Your task to perform on an android device: turn on javascript in the chrome app Image 0: 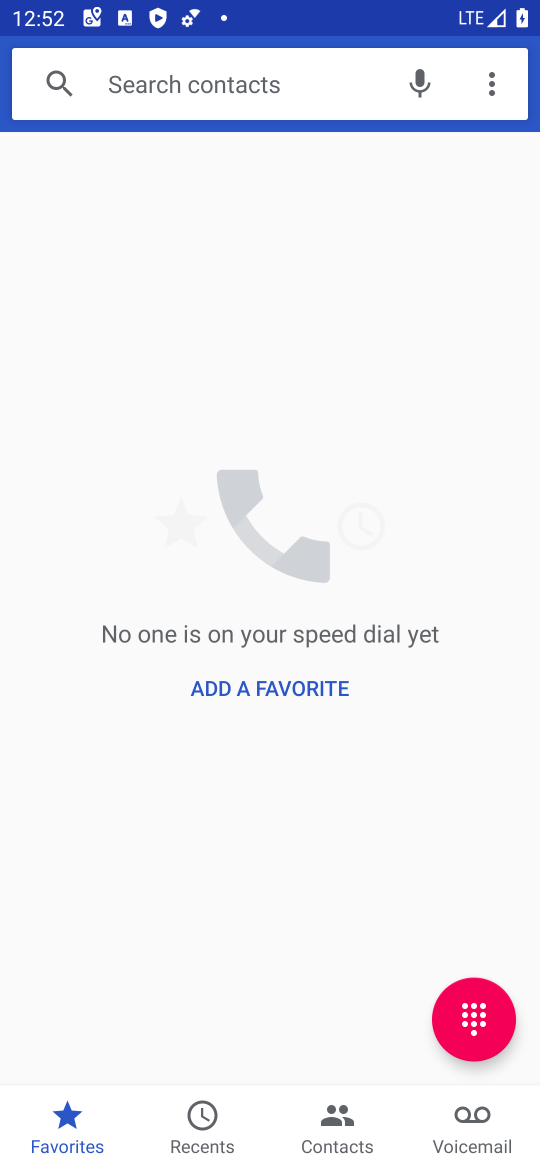
Step 0: press home button
Your task to perform on an android device: turn on javascript in the chrome app Image 1: 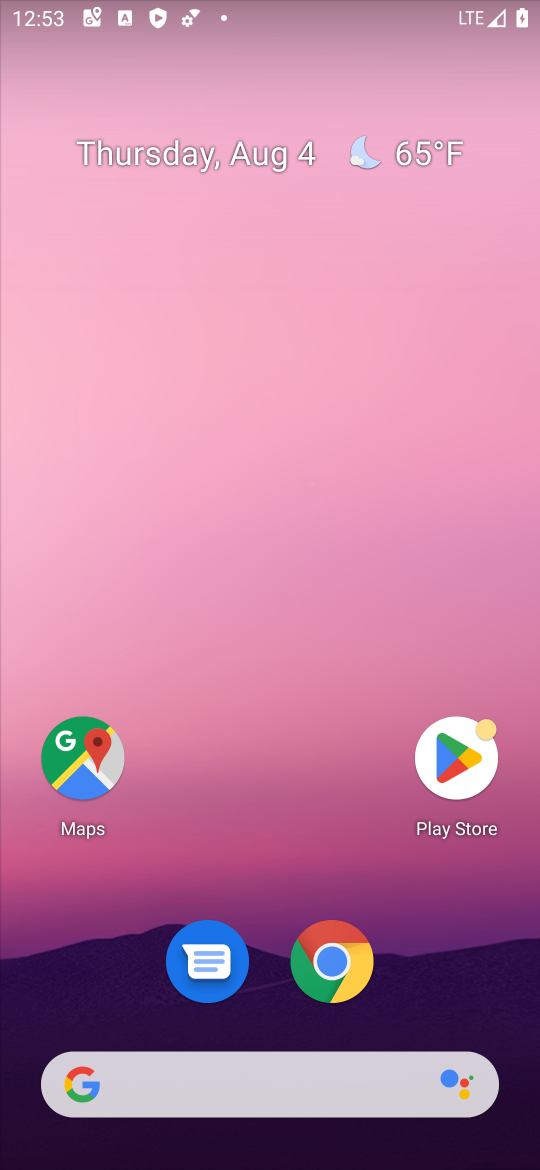
Step 1: click (351, 965)
Your task to perform on an android device: turn on javascript in the chrome app Image 2: 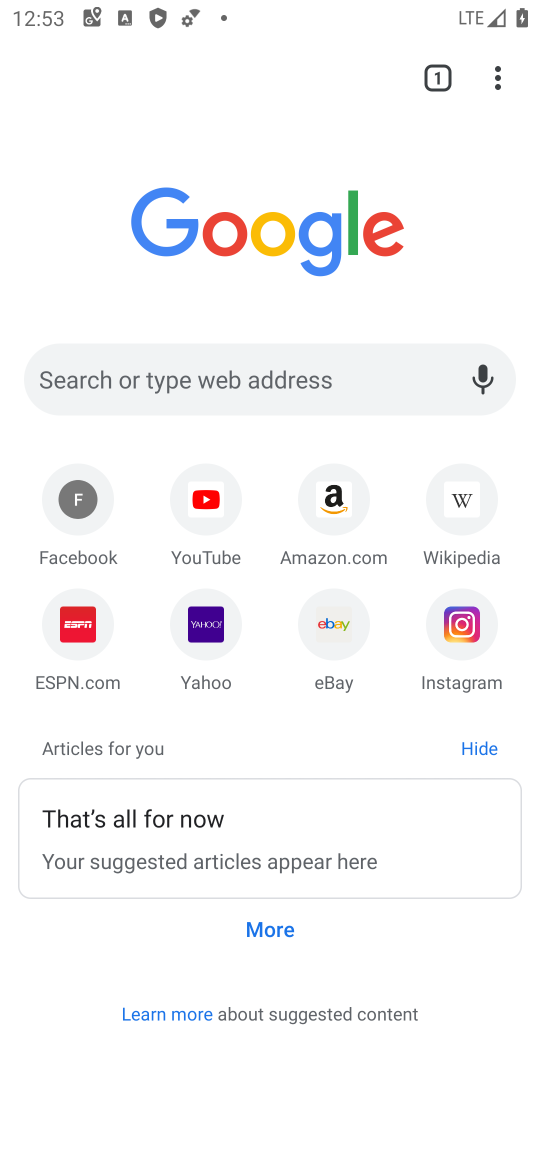
Step 2: click (502, 74)
Your task to perform on an android device: turn on javascript in the chrome app Image 3: 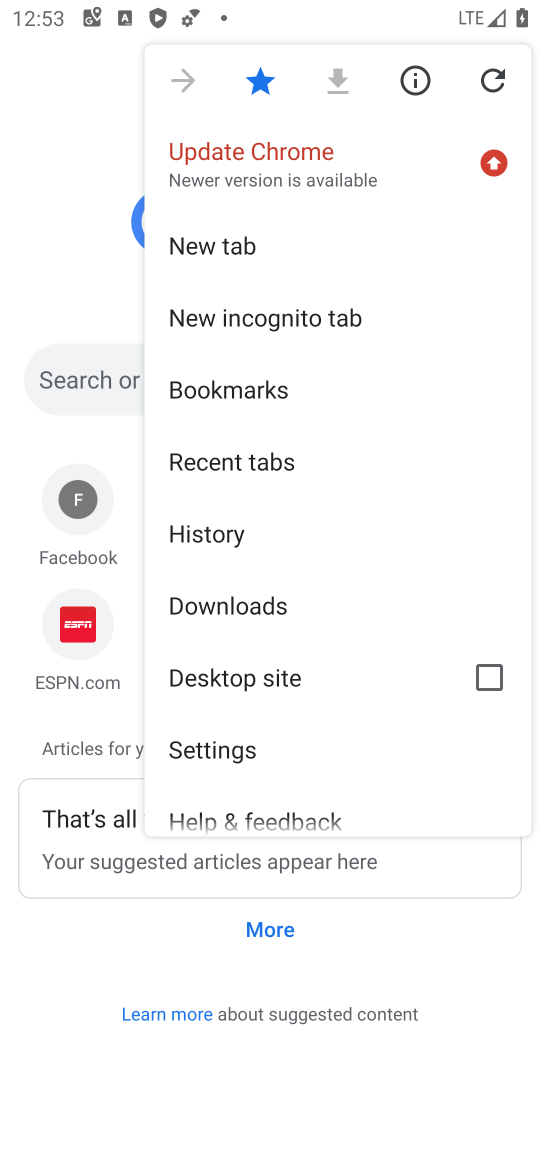
Step 3: click (238, 743)
Your task to perform on an android device: turn on javascript in the chrome app Image 4: 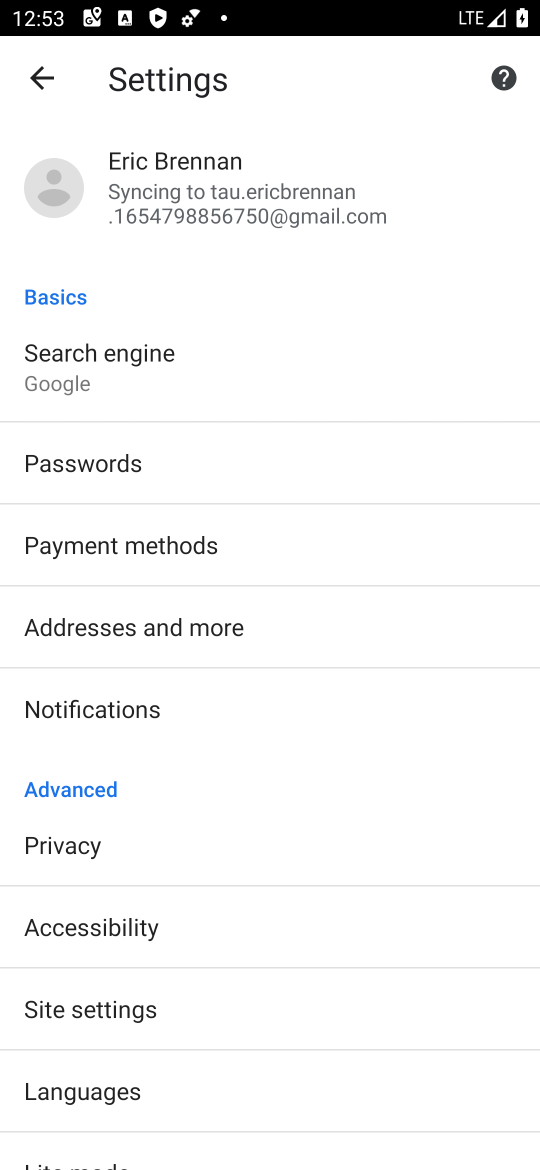
Step 4: click (141, 1006)
Your task to perform on an android device: turn on javascript in the chrome app Image 5: 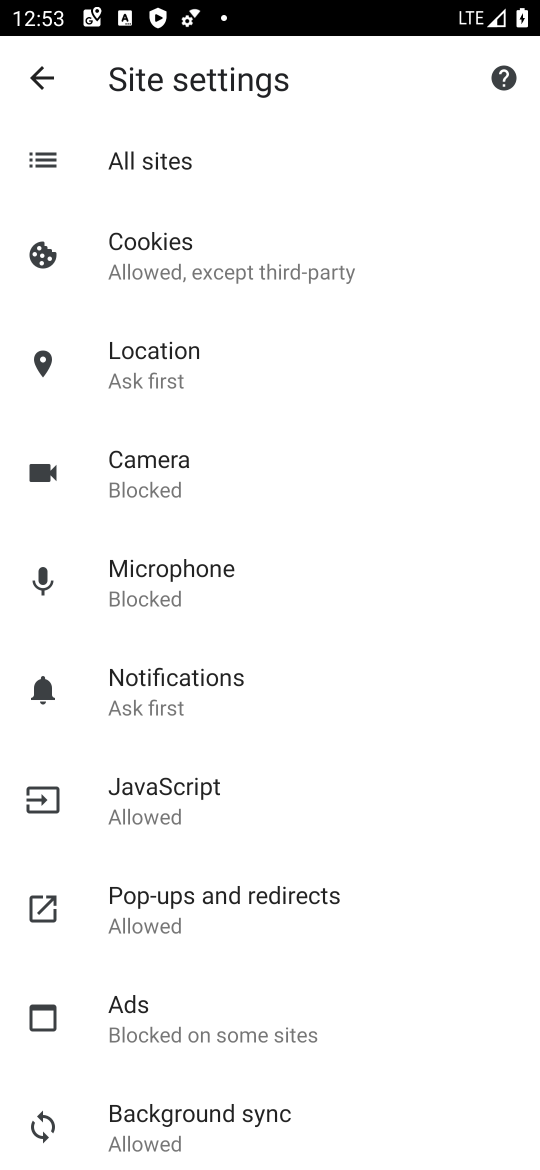
Step 5: click (161, 795)
Your task to perform on an android device: turn on javascript in the chrome app Image 6: 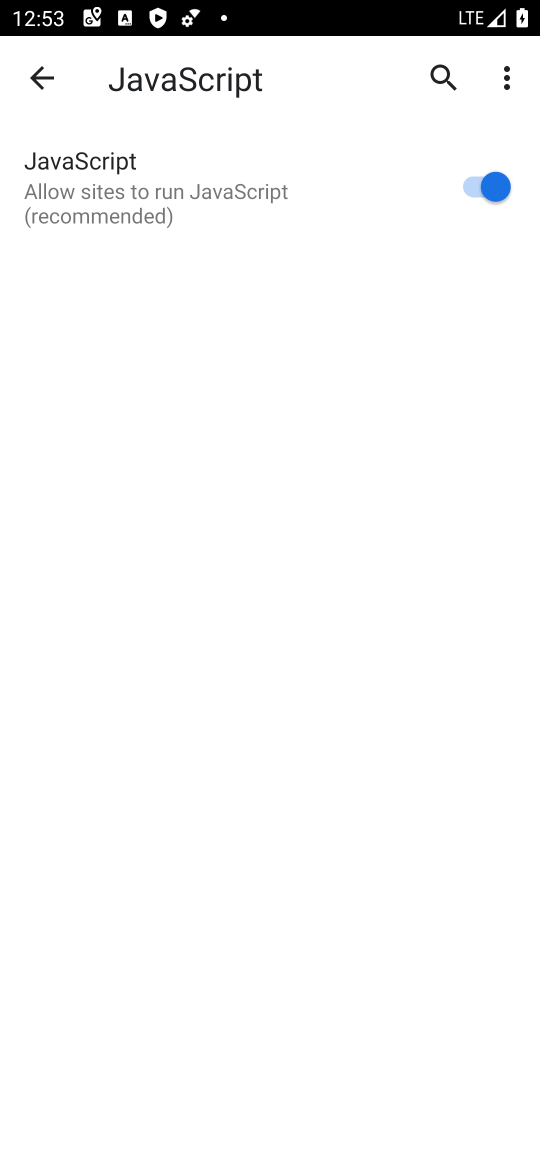
Step 6: task complete